Your task to perform on an android device: change keyboard looks Image 0: 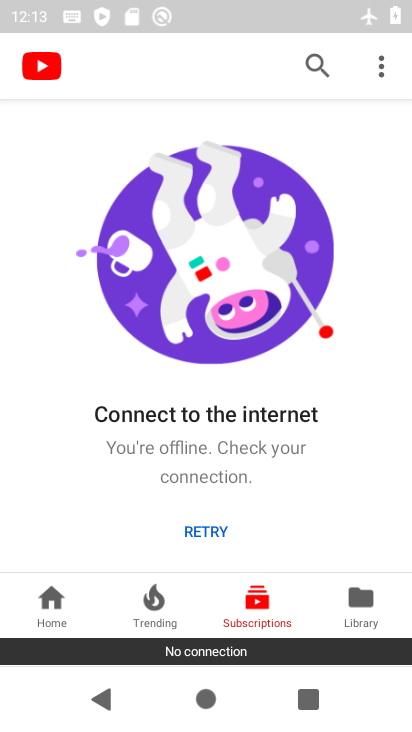
Step 0: press home button
Your task to perform on an android device: change keyboard looks Image 1: 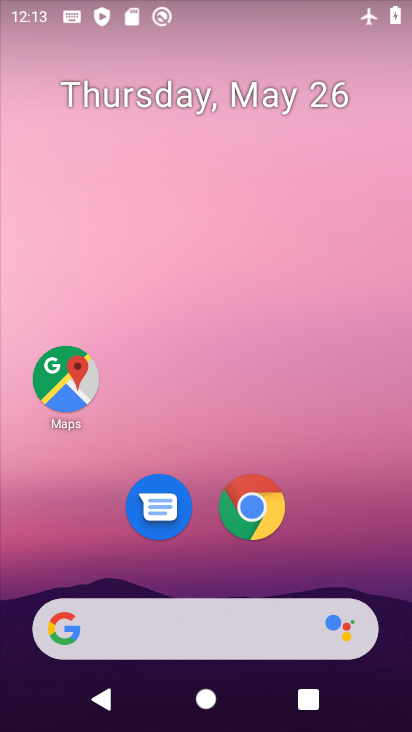
Step 1: drag from (200, 571) to (202, 153)
Your task to perform on an android device: change keyboard looks Image 2: 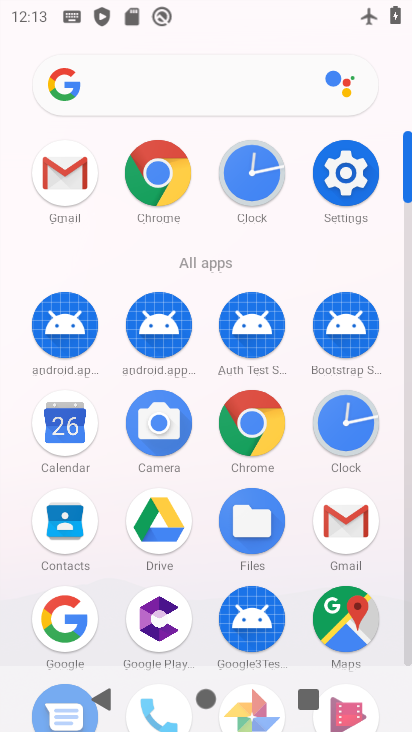
Step 2: click (357, 171)
Your task to perform on an android device: change keyboard looks Image 3: 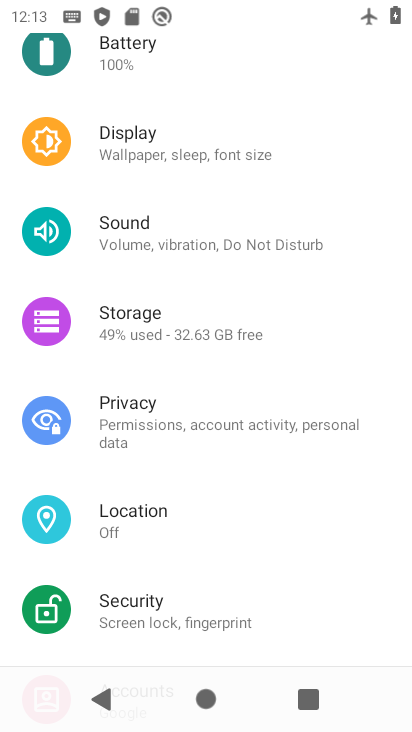
Step 3: drag from (199, 623) to (249, 202)
Your task to perform on an android device: change keyboard looks Image 4: 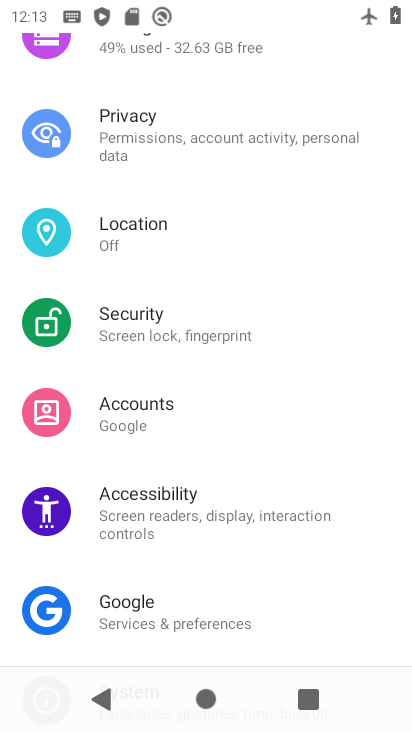
Step 4: drag from (190, 599) to (204, 218)
Your task to perform on an android device: change keyboard looks Image 5: 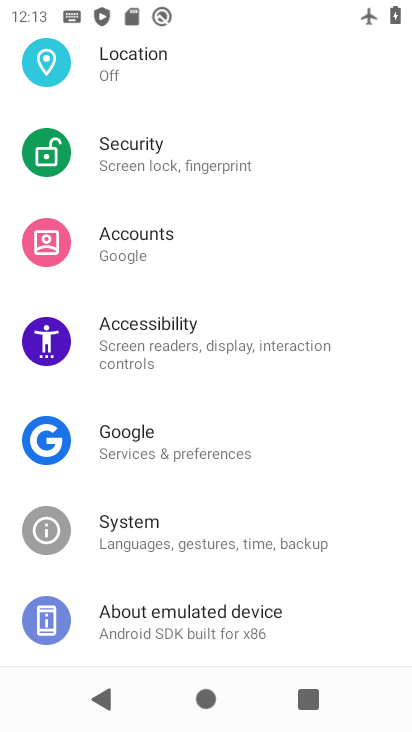
Step 5: click (197, 535)
Your task to perform on an android device: change keyboard looks Image 6: 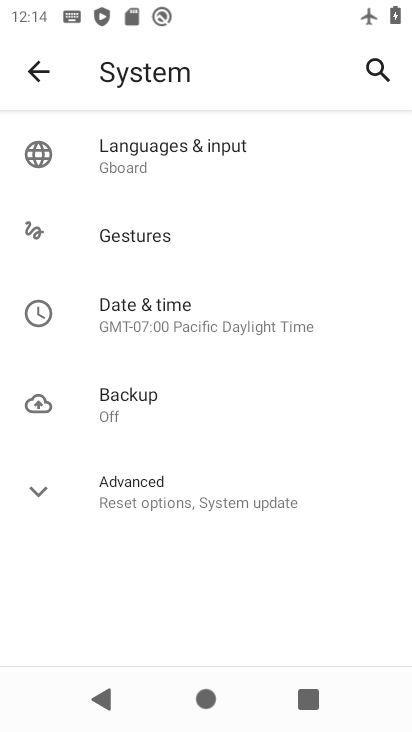
Step 6: click (170, 166)
Your task to perform on an android device: change keyboard looks Image 7: 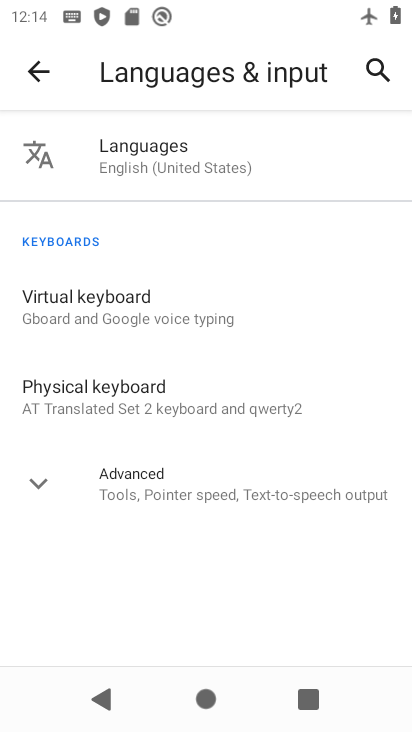
Step 7: click (116, 286)
Your task to perform on an android device: change keyboard looks Image 8: 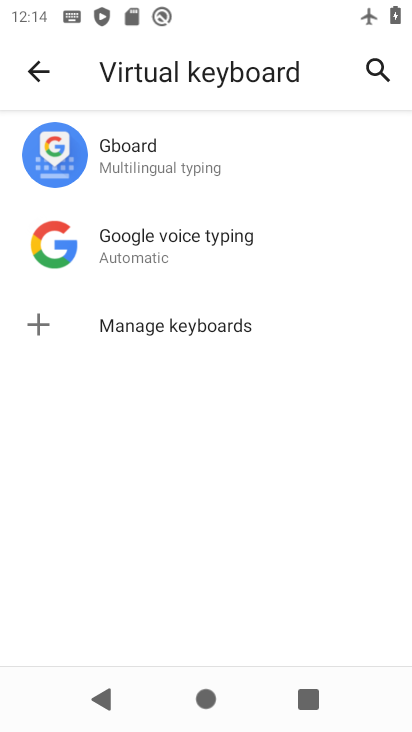
Step 8: click (110, 162)
Your task to perform on an android device: change keyboard looks Image 9: 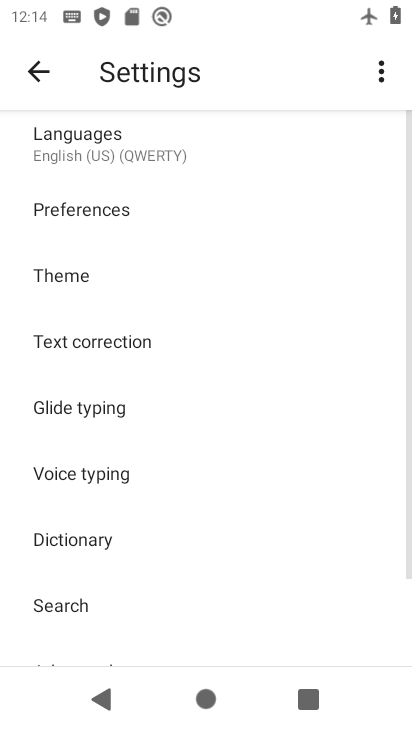
Step 9: click (91, 281)
Your task to perform on an android device: change keyboard looks Image 10: 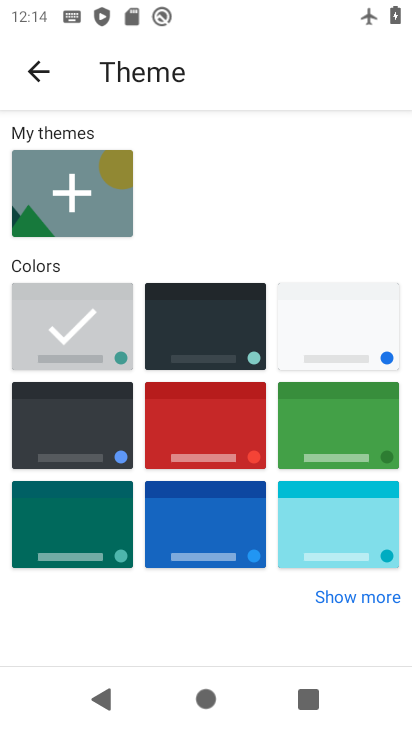
Step 10: click (243, 331)
Your task to perform on an android device: change keyboard looks Image 11: 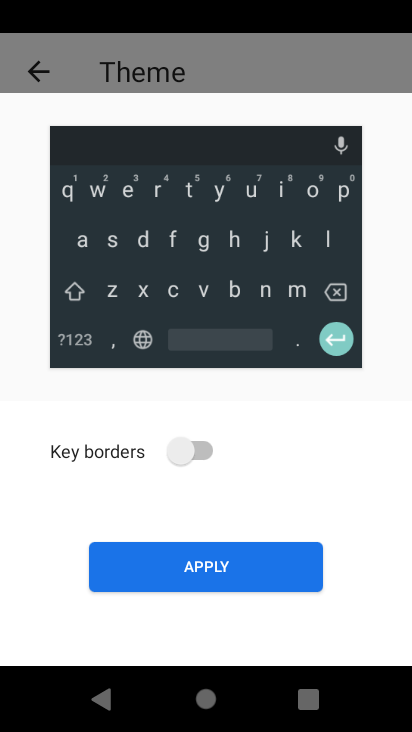
Step 11: click (265, 562)
Your task to perform on an android device: change keyboard looks Image 12: 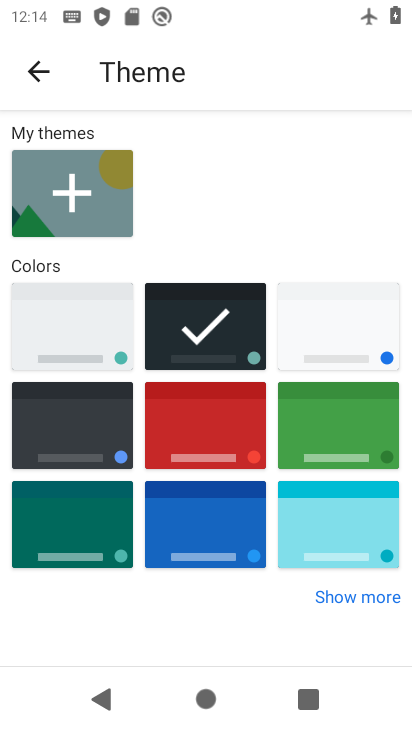
Step 12: task complete